Your task to perform on an android device: move a message to another label in the gmail app Image 0: 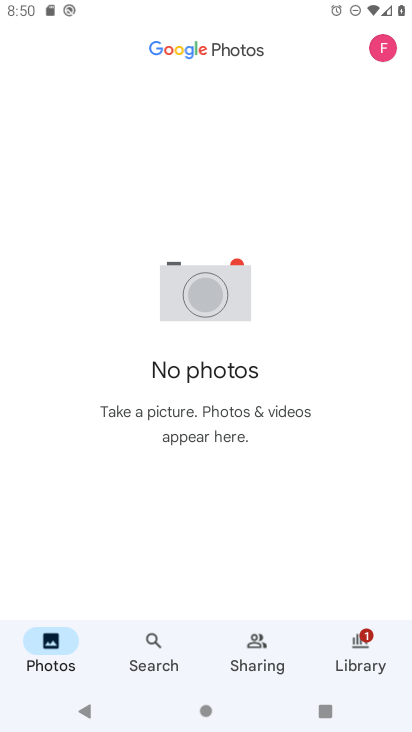
Step 0: press home button
Your task to perform on an android device: move a message to another label in the gmail app Image 1: 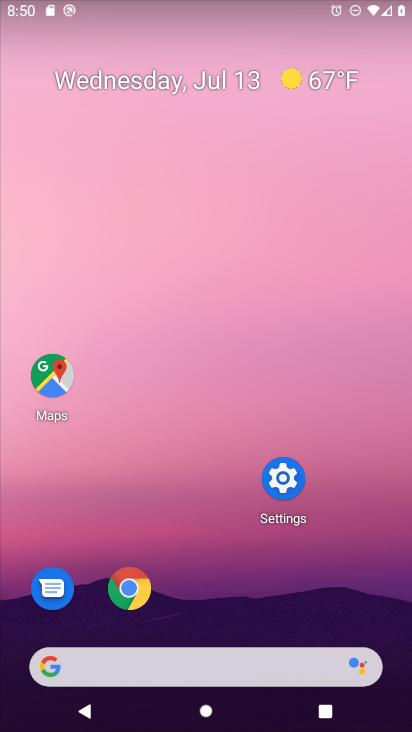
Step 1: drag from (246, 598) to (321, 184)
Your task to perform on an android device: move a message to another label in the gmail app Image 2: 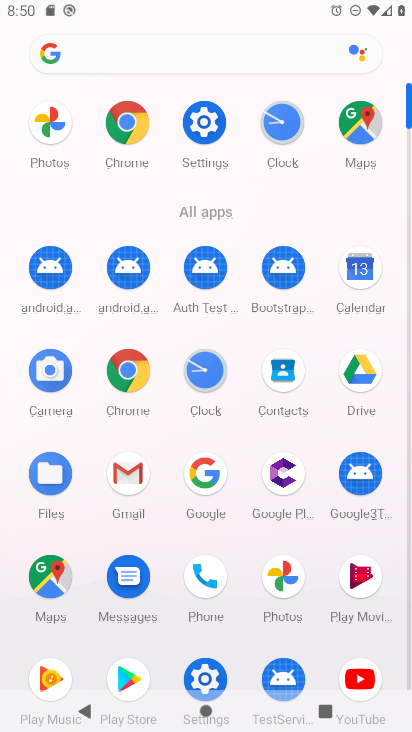
Step 2: drag from (118, 475) to (317, 600)
Your task to perform on an android device: move a message to another label in the gmail app Image 3: 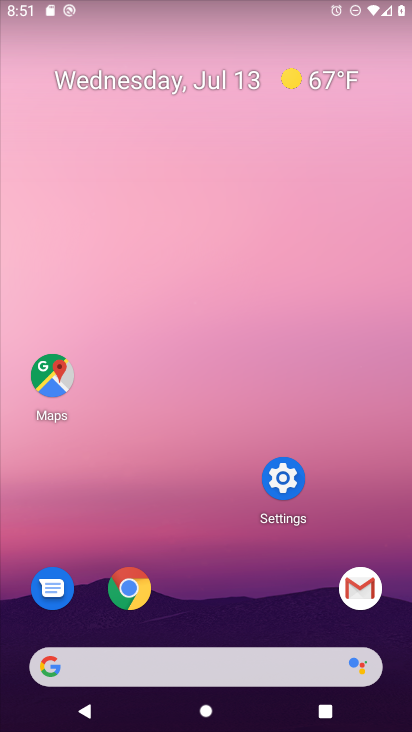
Step 3: click (362, 600)
Your task to perform on an android device: move a message to another label in the gmail app Image 4: 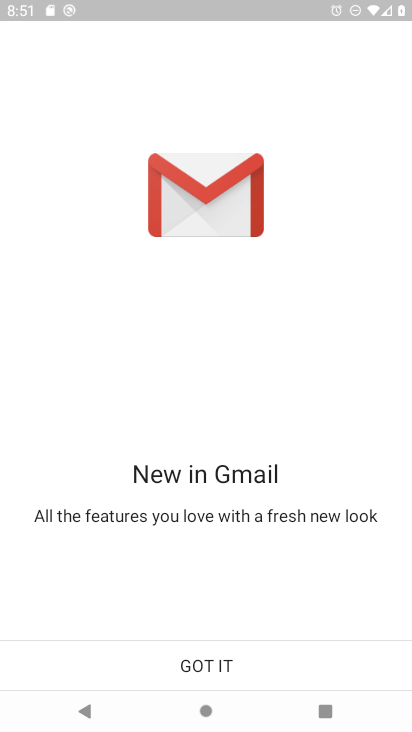
Step 4: click (202, 667)
Your task to perform on an android device: move a message to another label in the gmail app Image 5: 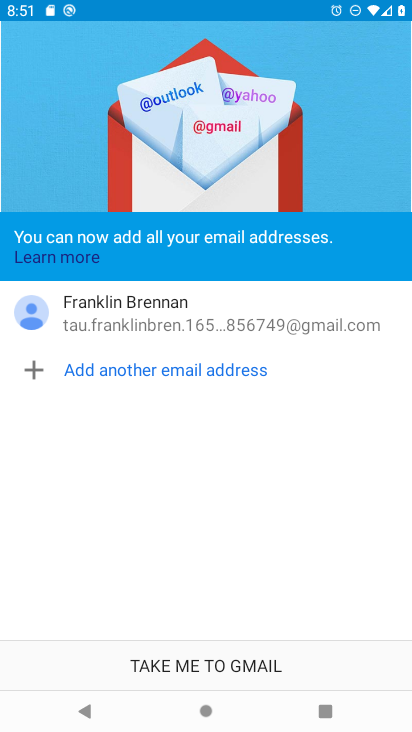
Step 5: click (190, 673)
Your task to perform on an android device: move a message to another label in the gmail app Image 6: 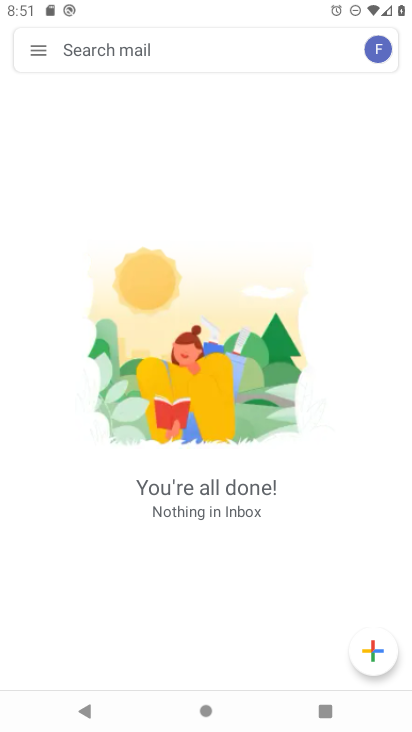
Step 6: click (26, 50)
Your task to perform on an android device: move a message to another label in the gmail app Image 7: 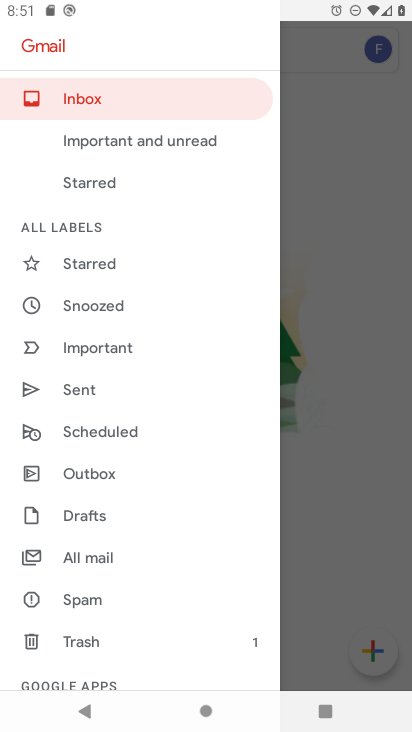
Step 7: drag from (55, 675) to (111, 535)
Your task to perform on an android device: move a message to another label in the gmail app Image 8: 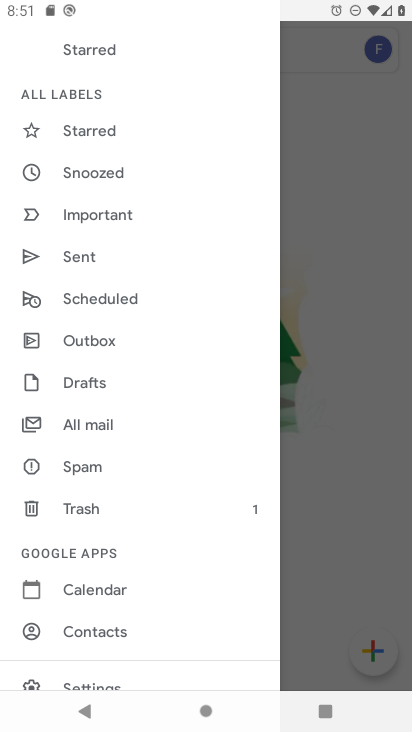
Step 8: click (70, 685)
Your task to perform on an android device: move a message to another label in the gmail app Image 9: 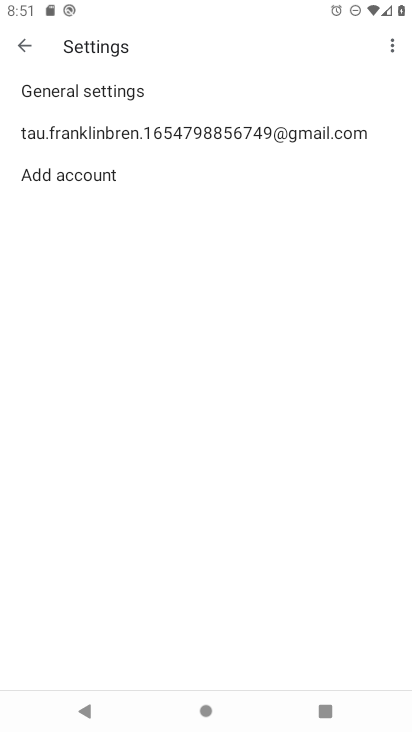
Step 9: click (145, 144)
Your task to perform on an android device: move a message to another label in the gmail app Image 10: 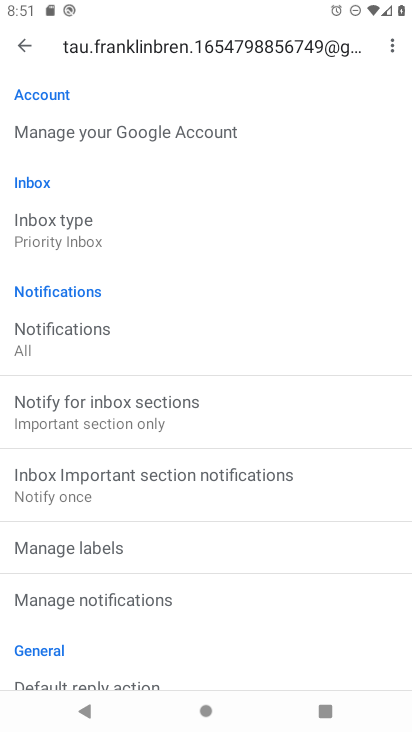
Step 10: click (97, 548)
Your task to perform on an android device: move a message to another label in the gmail app Image 11: 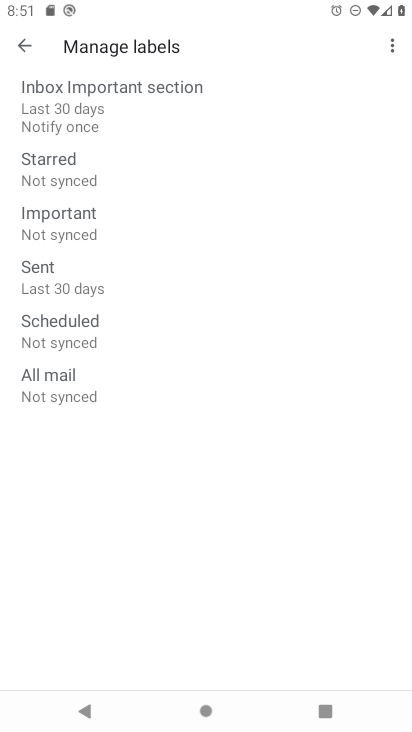
Step 11: click (112, 172)
Your task to perform on an android device: move a message to another label in the gmail app Image 12: 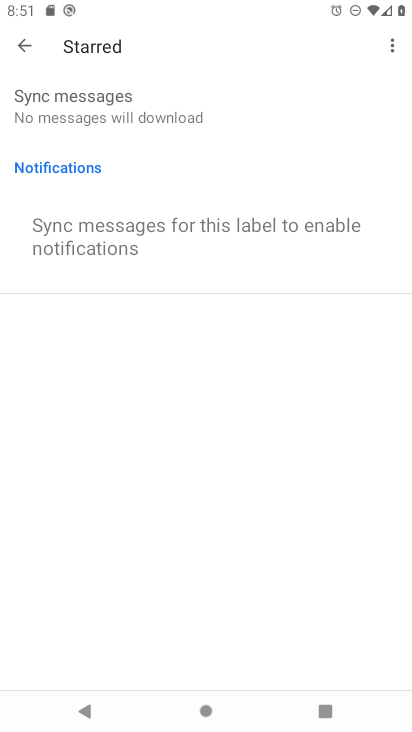
Step 12: task complete